Your task to perform on an android device: Open Youtube and go to the subscriptions tab Image 0: 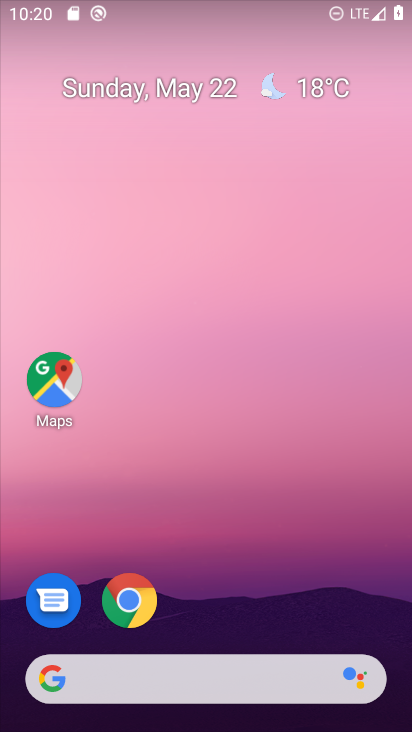
Step 0: drag from (395, 642) to (292, 98)
Your task to perform on an android device: Open Youtube and go to the subscriptions tab Image 1: 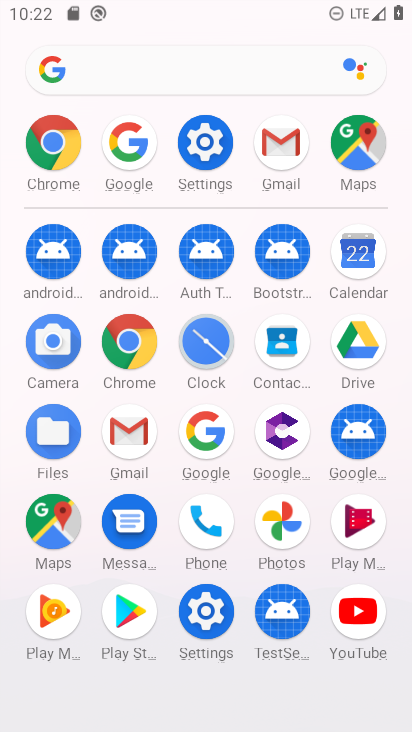
Step 1: click (346, 610)
Your task to perform on an android device: Open Youtube and go to the subscriptions tab Image 2: 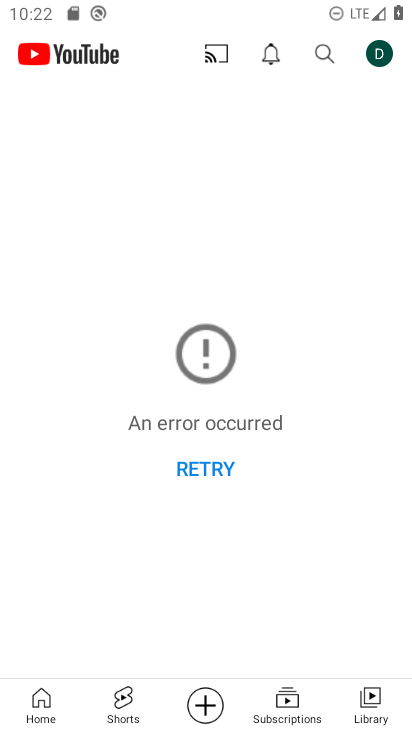
Step 2: click (296, 701)
Your task to perform on an android device: Open Youtube and go to the subscriptions tab Image 3: 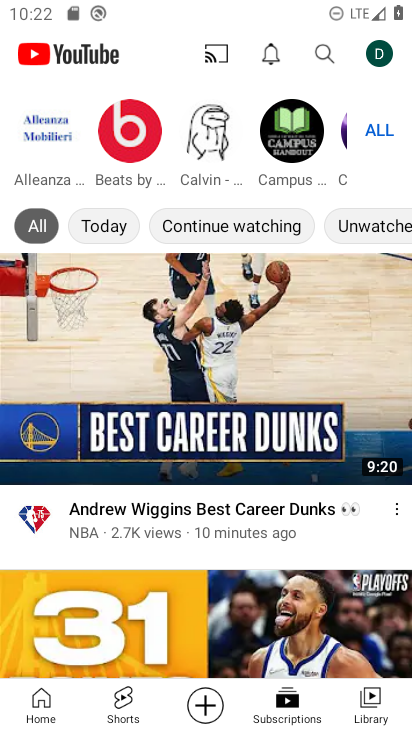
Step 3: task complete